Your task to perform on an android device: Open the web browser Image 0: 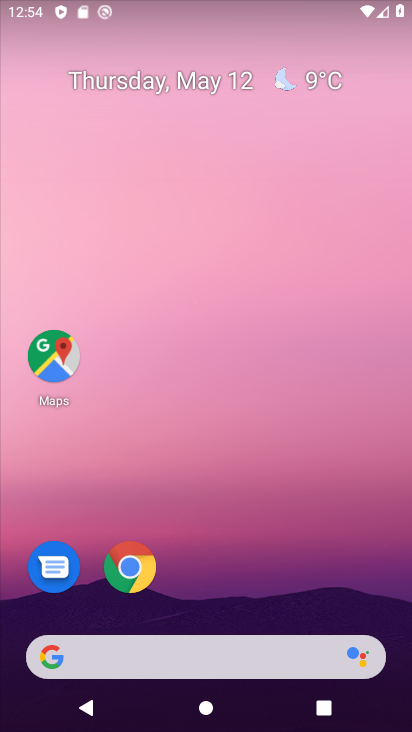
Step 0: click (126, 566)
Your task to perform on an android device: Open the web browser Image 1: 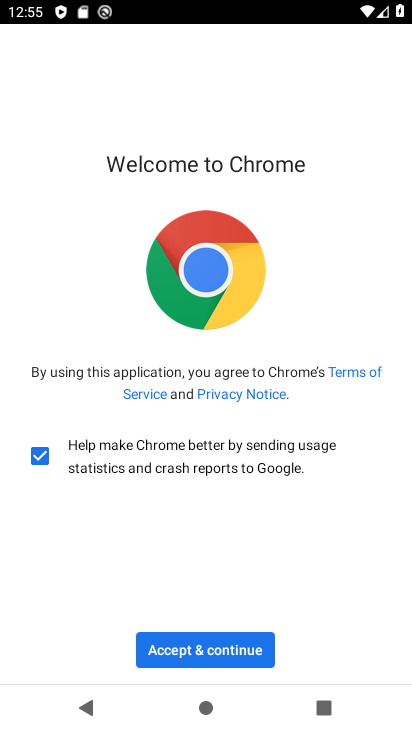
Step 1: click (205, 647)
Your task to perform on an android device: Open the web browser Image 2: 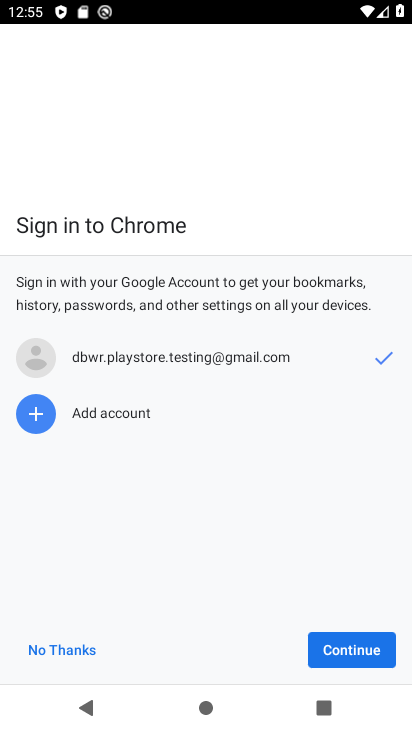
Step 2: click (346, 646)
Your task to perform on an android device: Open the web browser Image 3: 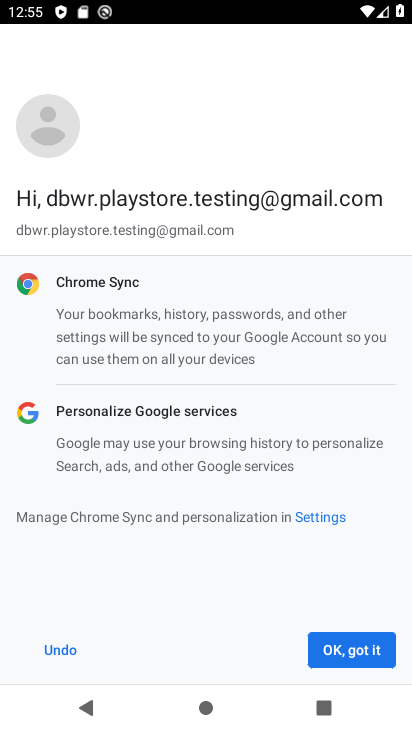
Step 3: click (365, 645)
Your task to perform on an android device: Open the web browser Image 4: 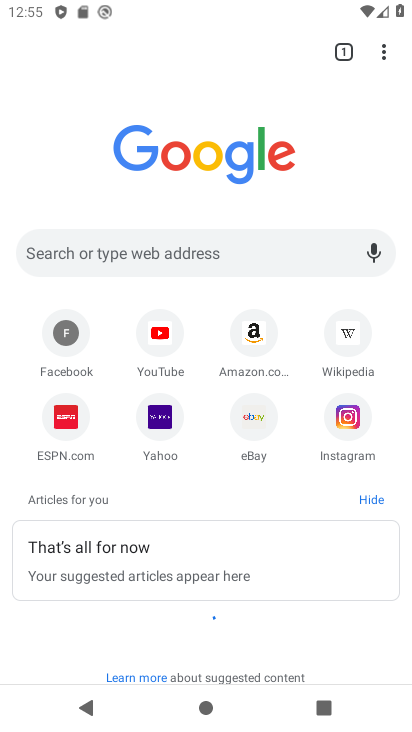
Step 4: task complete